Your task to perform on an android device: Go to notification settings Image 0: 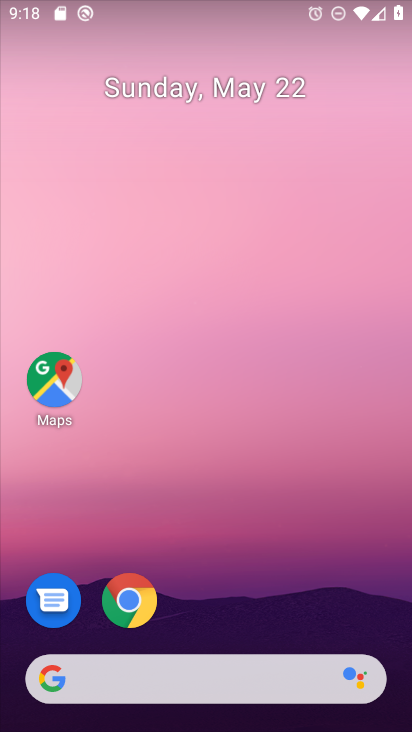
Step 0: drag from (258, 651) to (325, 140)
Your task to perform on an android device: Go to notification settings Image 1: 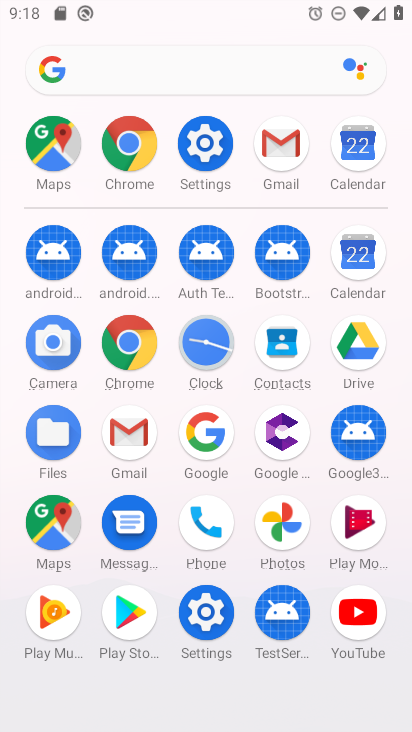
Step 1: click (220, 169)
Your task to perform on an android device: Go to notification settings Image 2: 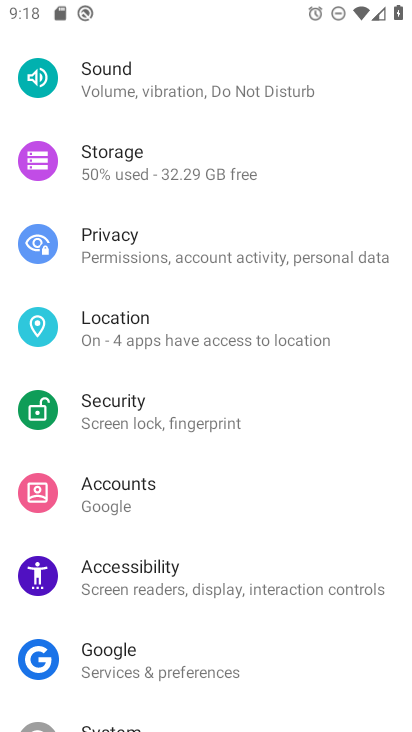
Step 2: drag from (191, 259) to (191, 612)
Your task to perform on an android device: Go to notification settings Image 3: 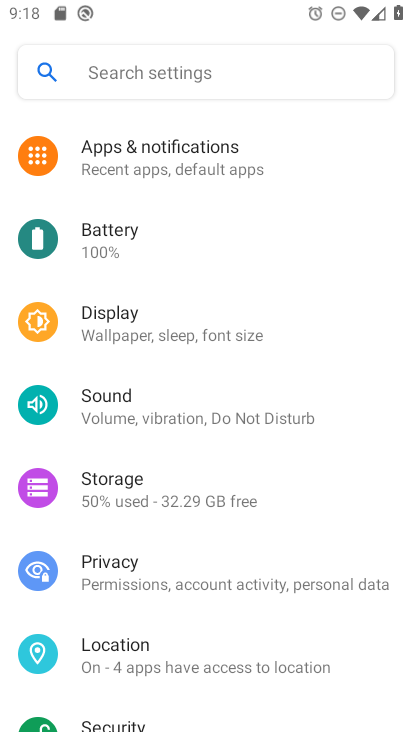
Step 3: drag from (172, 318) to (157, 537)
Your task to perform on an android device: Go to notification settings Image 4: 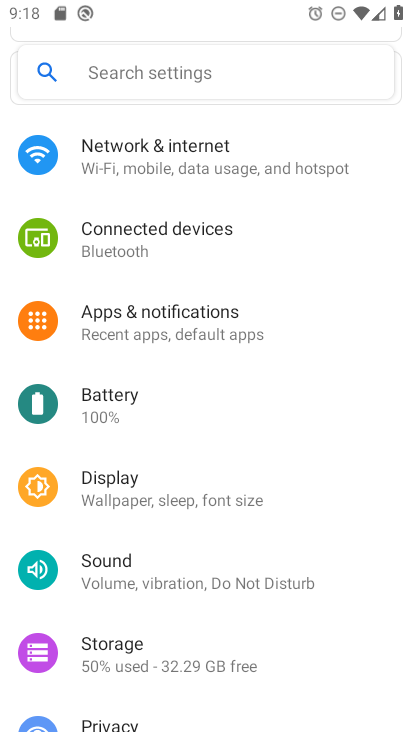
Step 4: click (196, 334)
Your task to perform on an android device: Go to notification settings Image 5: 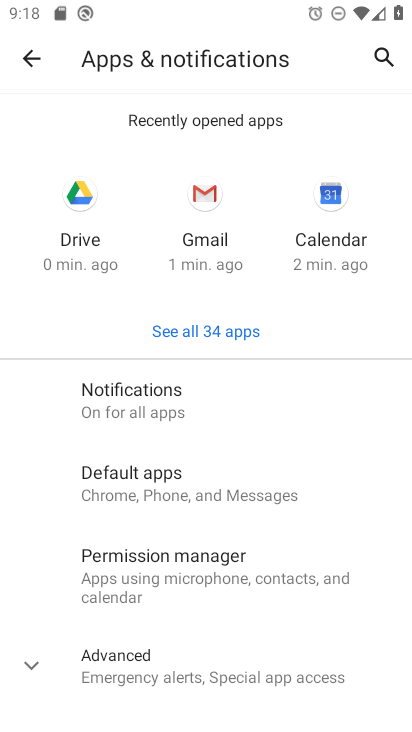
Step 5: click (176, 403)
Your task to perform on an android device: Go to notification settings Image 6: 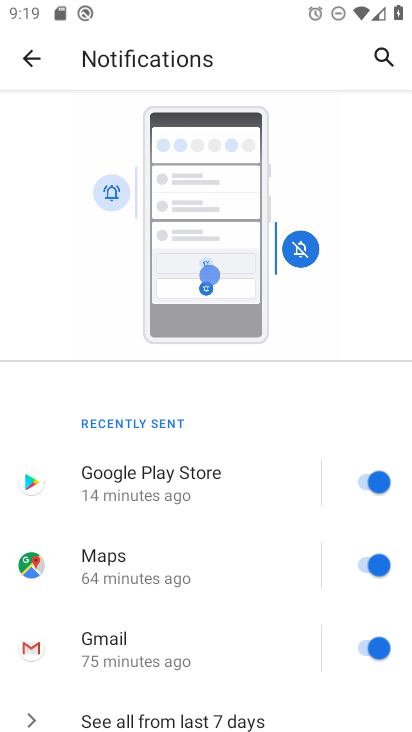
Step 6: task complete